Your task to perform on an android device: Open battery settings Image 0: 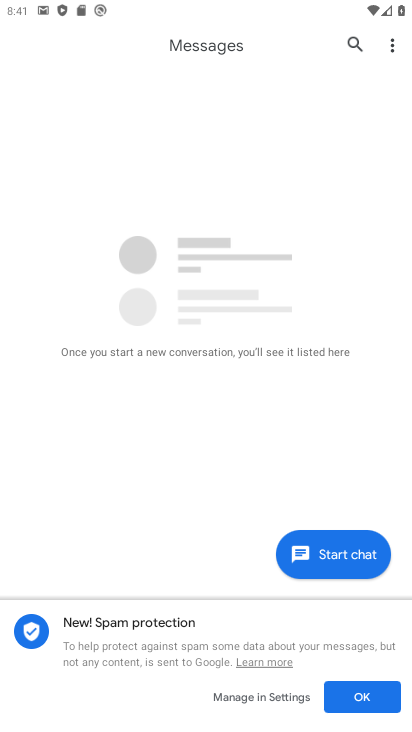
Step 0: press home button
Your task to perform on an android device: Open battery settings Image 1: 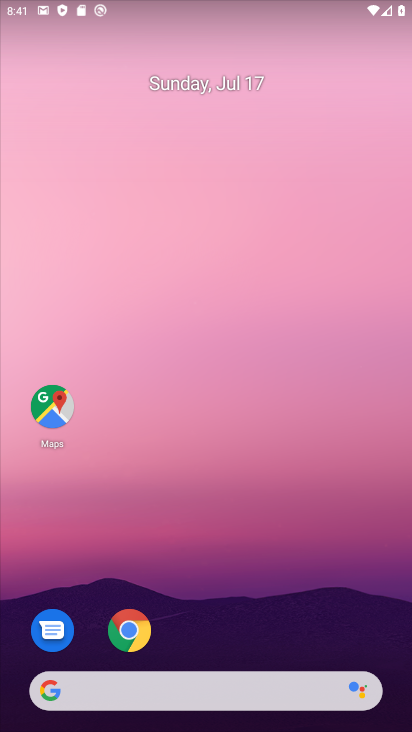
Step 1: drag from (370, 613) to (367, 155)
Your task to perform on an android device: Open battery settings Image 2: 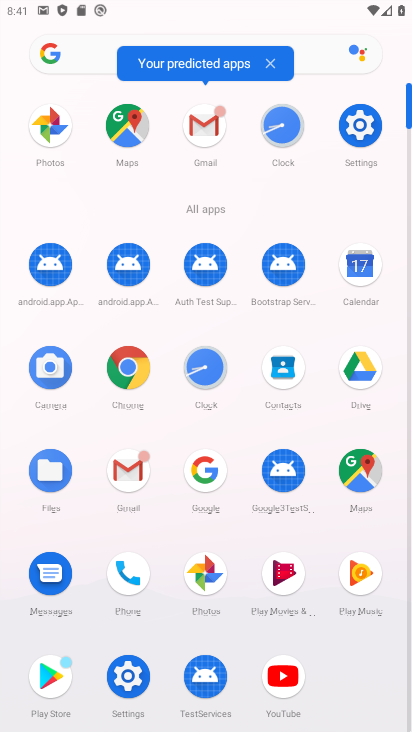
Step 2: click (370, 130)
Your task to perform on an android device: Open battery settings Image 3: 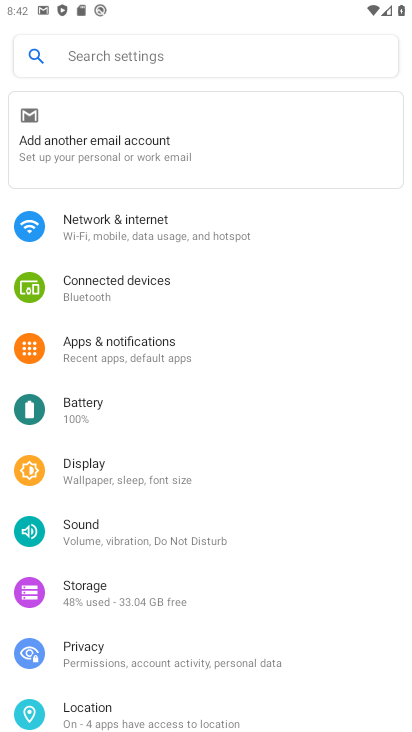
Step 3: click (119, 415)
Your task to perform on an android device: Open battery settings Image 4: 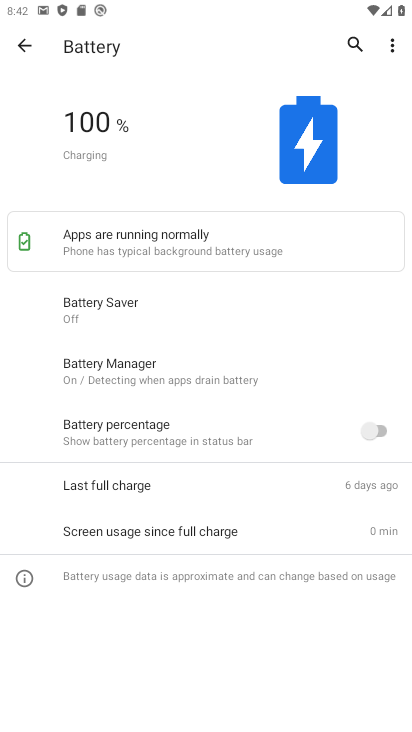
Step 4: task complete